Your task to perform on an android device: open a bookmark in the chrome app Image 0: 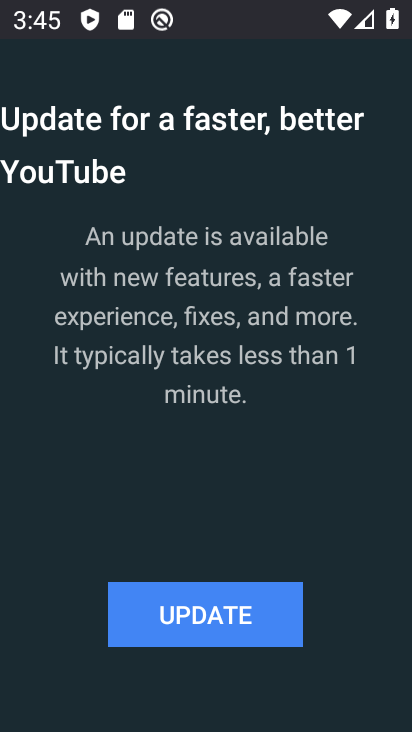
Step 0: press home button
Your task to perform on an android device: open a bookmark in the chrome app Image 1: 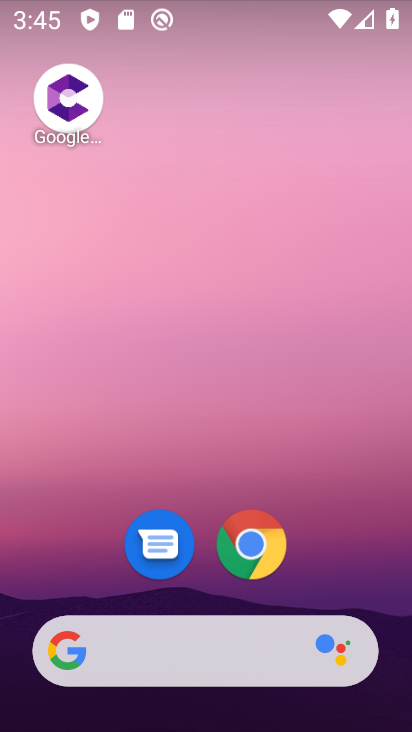
Step 1: press home button
Your task to perform on an android device: open a bookmark in the chrome app Image 2: 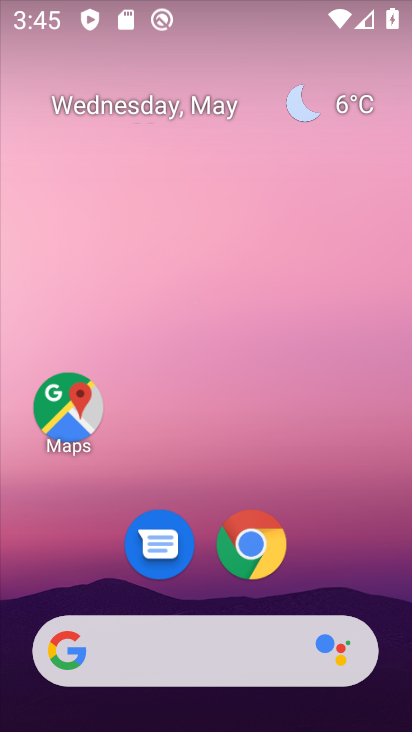
Step 2: drag from (158, 480) to (333, 81)
Your task to perform on an android device: open a bookmark in the chrome app Image 3: 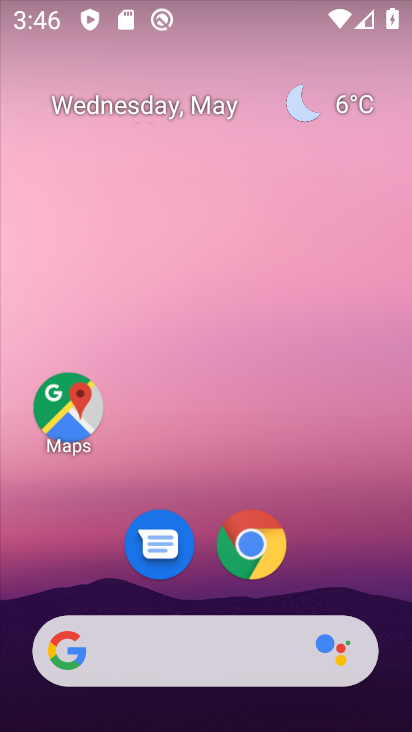
Step 3: drag from (8, 712) to (353, 216)
Your task to perform on an android device: open a bookmark in the chrome app Image 4: 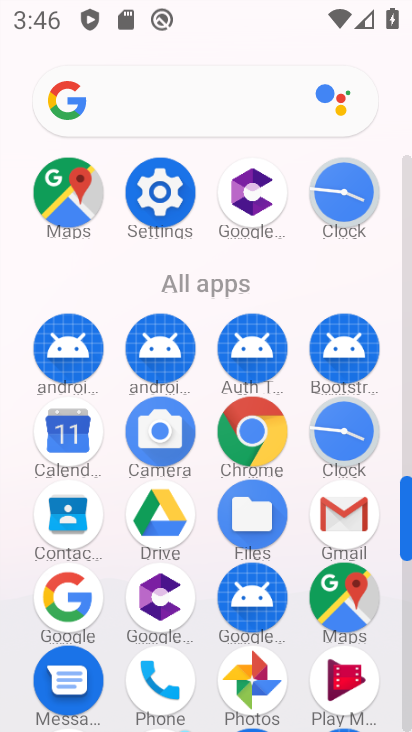
Step 4: click (256, 442)
Your task to perform on an android device: open a bookmark in the chrome app Image 5: 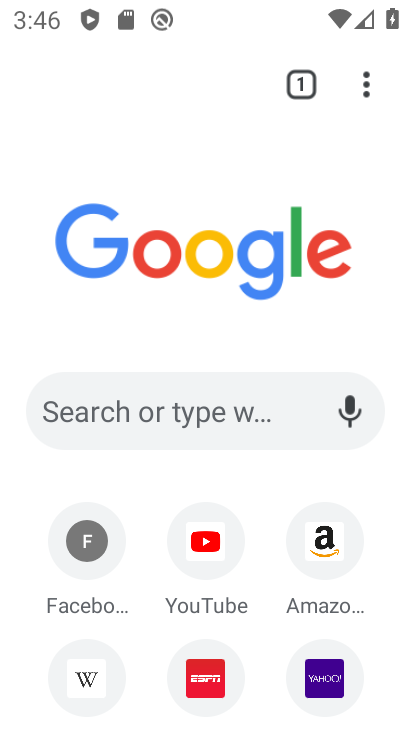
Step 5: click (365, 85)
Your task to perform on an android device: open a bookmark in the chrome app Image 6: 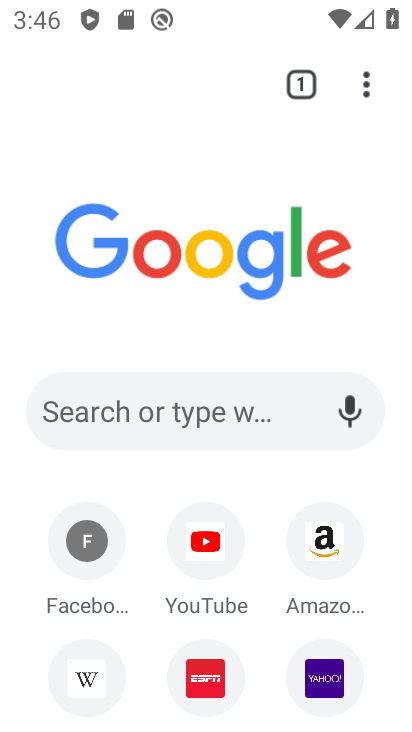
Step 6: click (364, 83)
Your task to perform on an android device: open a bookmark in the chrome app Image 7: 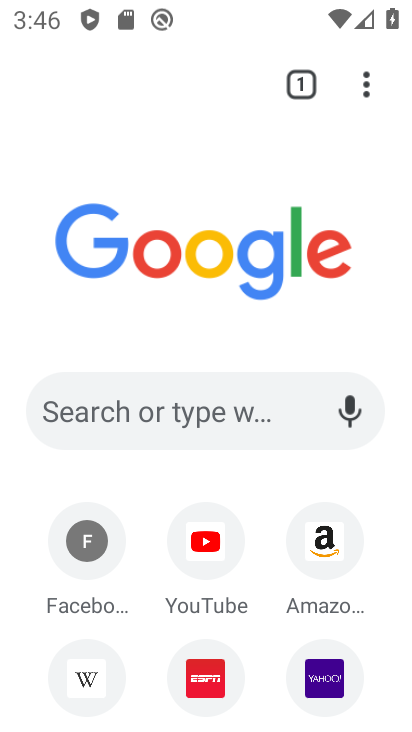
Step 7: click (364, 83)
Your task to perform on an android device: open a bookmark in the chrome app Image 8: 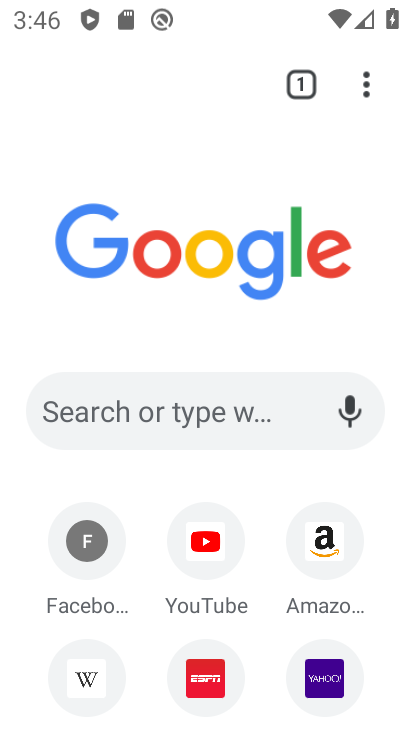
Step 8: click (363, 85)
Your task to perform on an android device: open a bookmark in the chrome app Image 9: 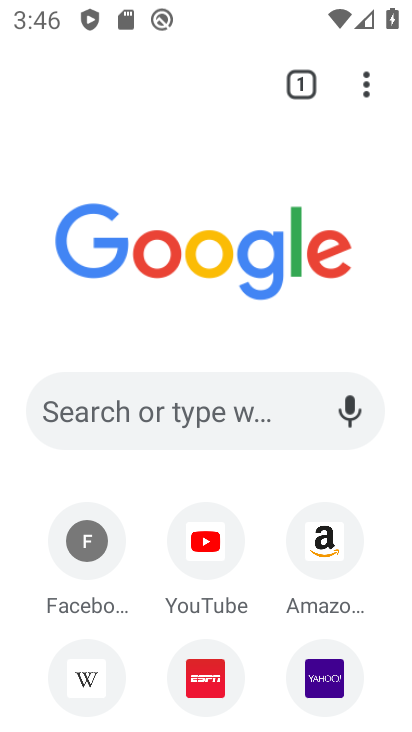
Step 9: click (362, 86)
Your task to perform on an android device: open a bookmark in the chrome app Image 10: 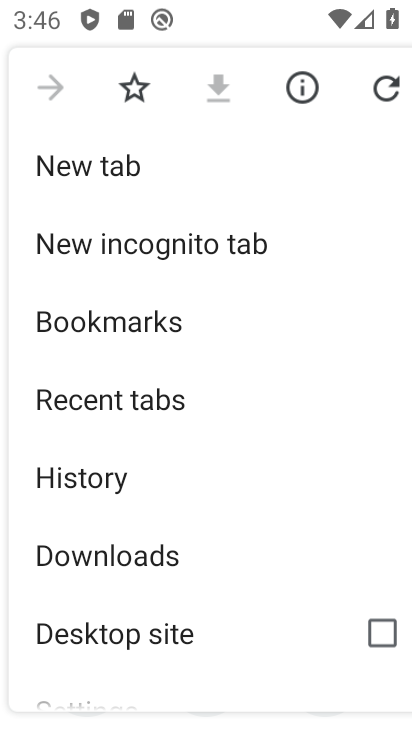
Step 10: click (159, 329)
Your task to perform on an android device: open a bookmark in the chrome app Image 11: 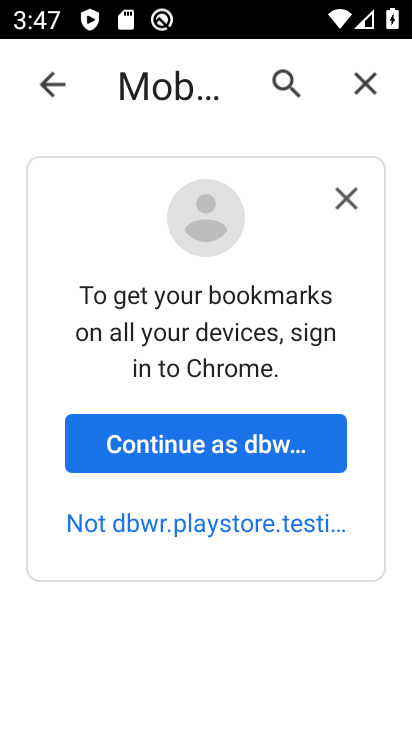
Step 11: task complete